Your task to perform on an android device: Add razer blackwidow to the cart on ebay.com Image 0: 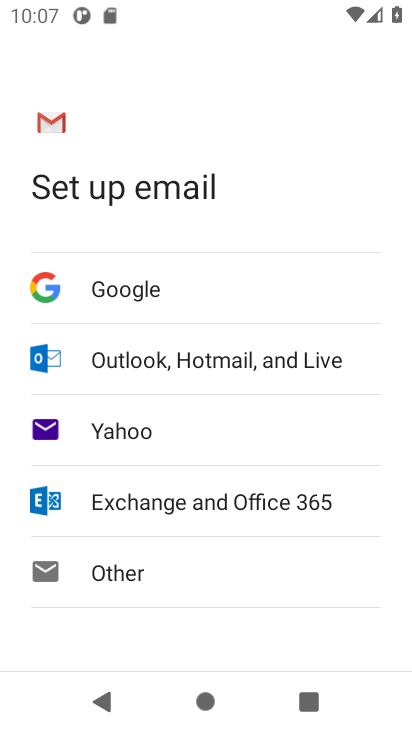
Step 0: press home button
Your task to perform on an android device: Add razer blackwidow to the cart on ebay.com Image 1: 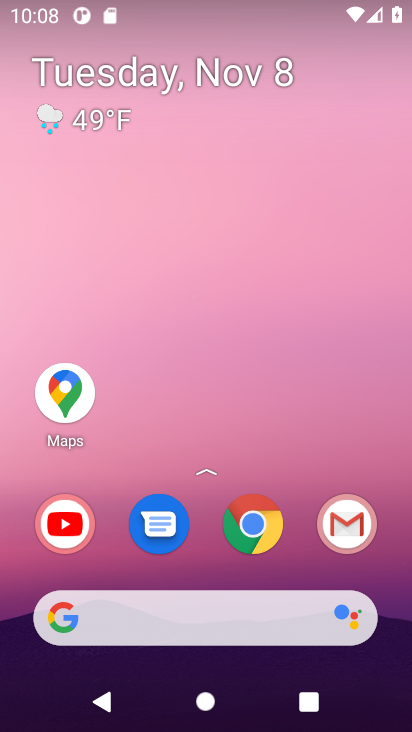
Step 1: click (249, 533)
Your task to perform on an android device: Add razer blackwidow to the cart on ebay.com Image 2: 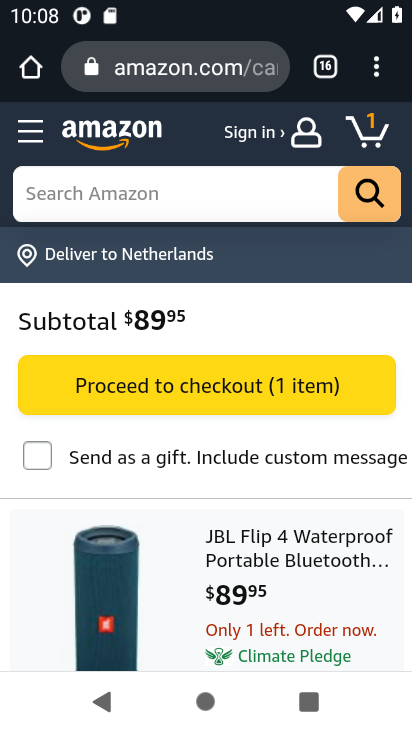
Step 2: click (182, 68)
Your task to perform on an android device: Add razer blackwidow to the cart on ebay.com Image 3: 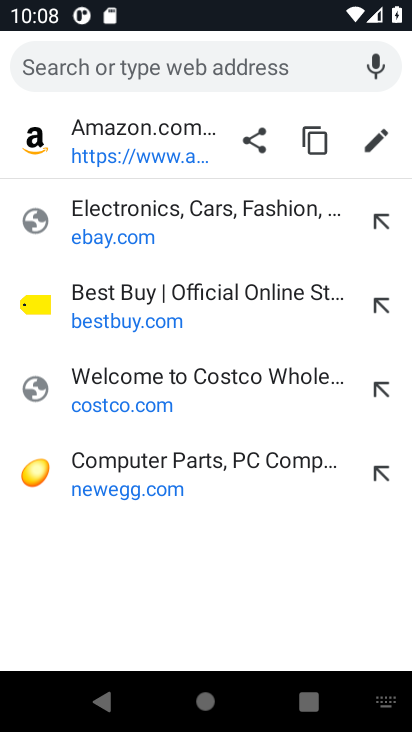
Step 3: click (110, 232)
Your task to perform on an android device: Add razer blackwidow to the cart on ebay.com Image 4: 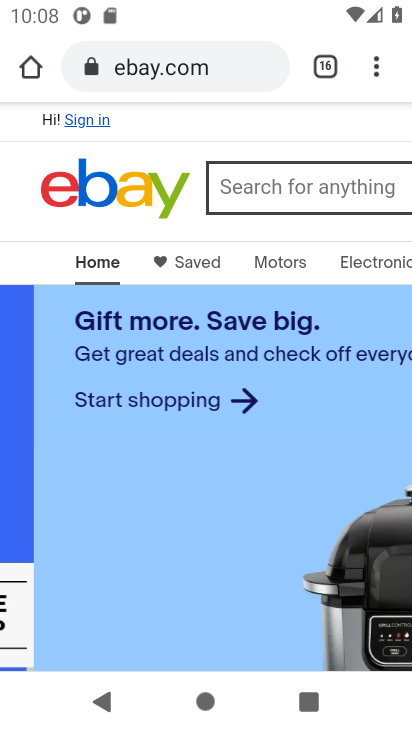
Step 4: drag from (347, 228) to (96, 233)
Your task to perform on an android device: Add razer blackwidow to the cart on ebay.com Image 5: 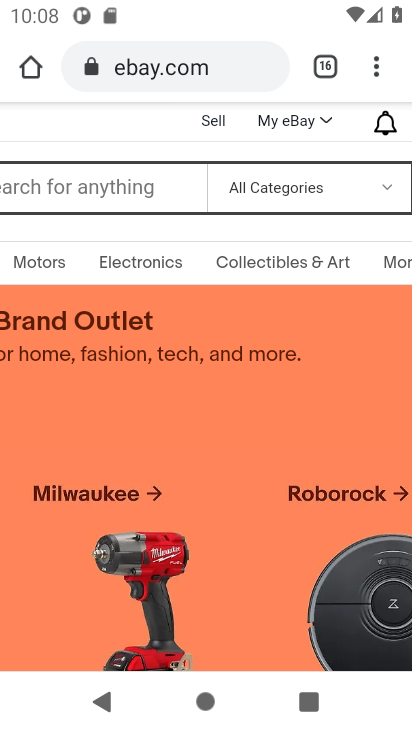
Step 5: click (116, 190)
Your task to perform on an android device: Add razer blackwidow to the cart on ebay.com Image 6: 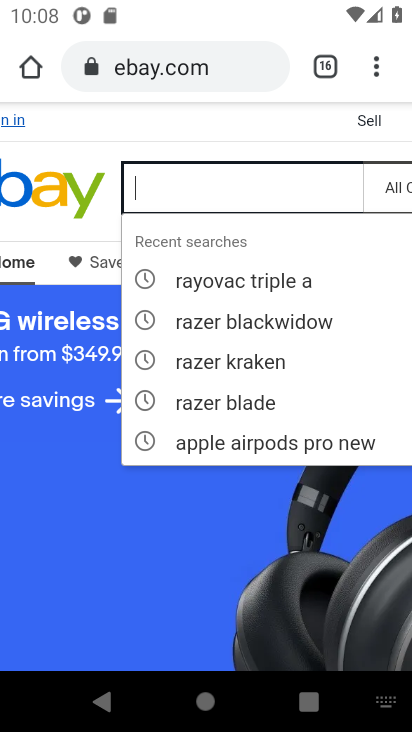
Step 6: type " razer blackwidow"
Your task to perform on an android device: Add razer blackwidow to the cart on ebay.com Image 7: 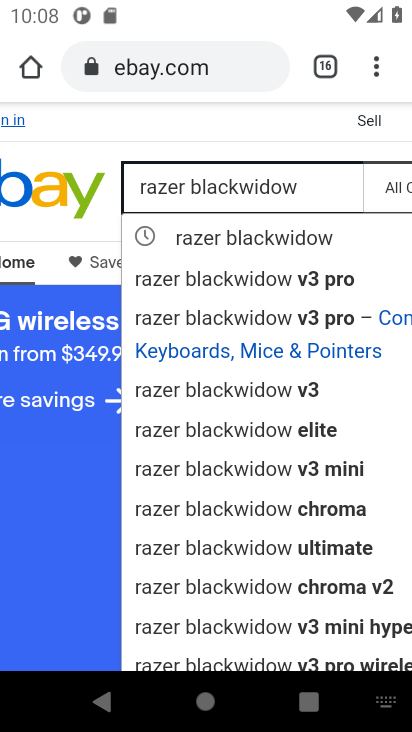
Step 7: click (253, 236)
Your task to perform on an android device: Add razer blackwidow to the cart on ebay.com Image 8: 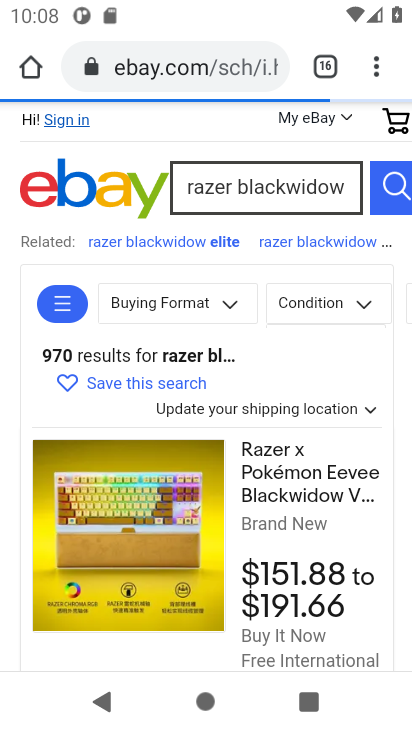
Step 8: drag from (190, 531) to (218, 253)
Your task to perform on an android device: Add razer blackwidow to the cart on ebay.com Image 9: 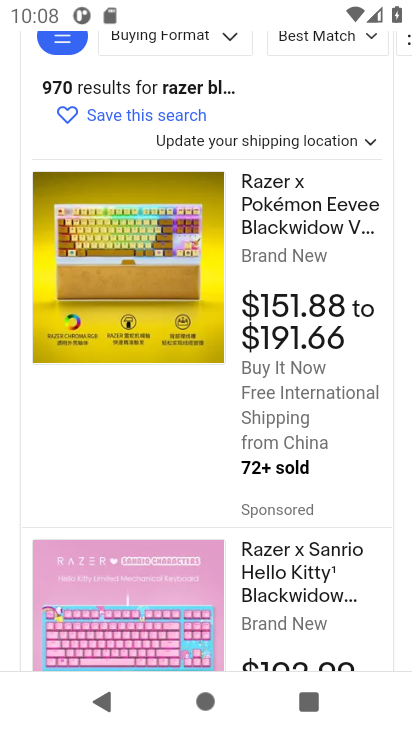
Step 9: drag from (173, 489) to (179, 203)
Your task to perform on an android device: Add razer blackwidow to the cart on ebay.com Image 10: 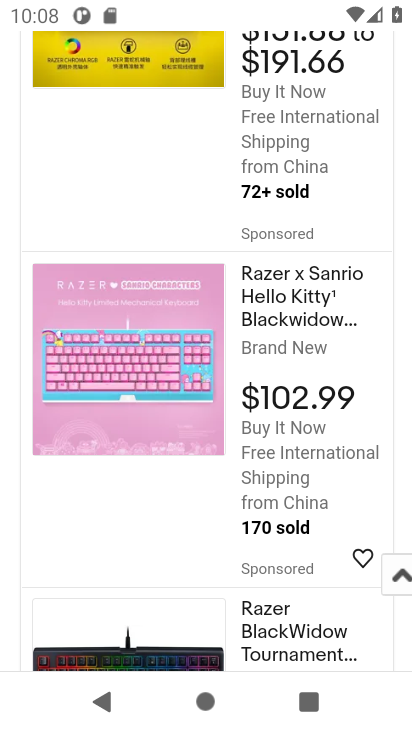
Step 10: drag from (192, 606) to (200, 338)
Your task to perform on an android device: Add razer blackwidow to the cart on ebay.com Image 11: 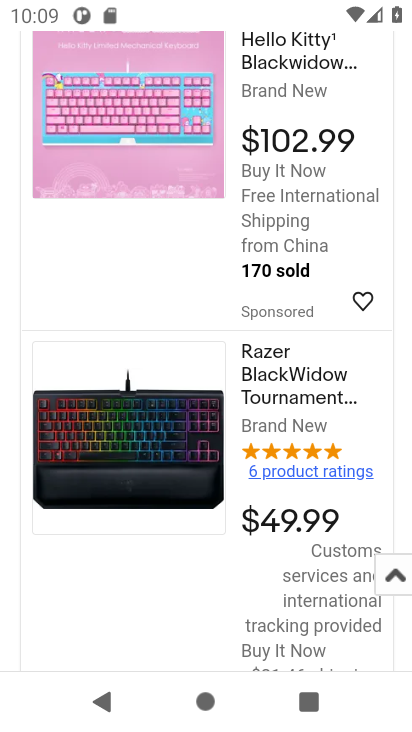
Step 11: click (176, 456)
Your task to perform on an android device: Add razer blackwidow to the cart on ebay.com Image 12: 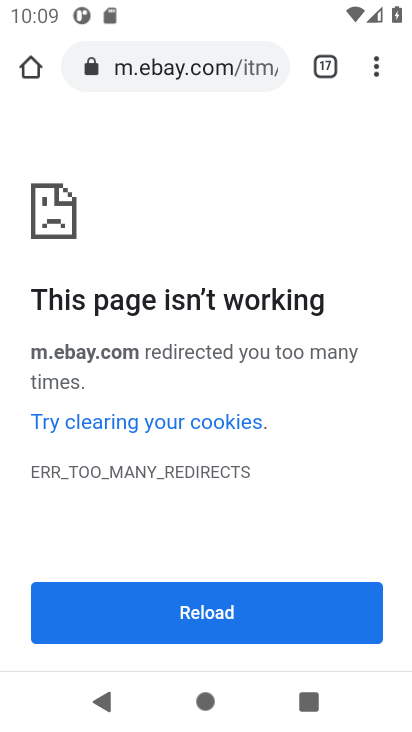
Step 12: task complete